Your task to perform on an android device: Open Google Chrome and click the shortcut for Amazon.com Image 0: 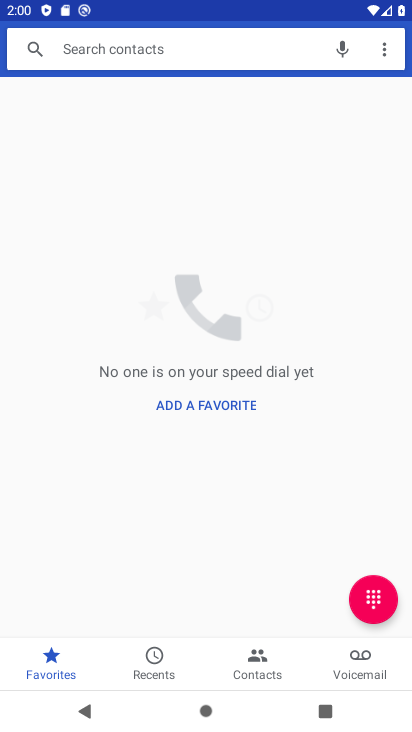
Step 0: press home button
Your task to perform on an android device: Open Google Chrome and click the shortcut for Amazon.com Image 1: 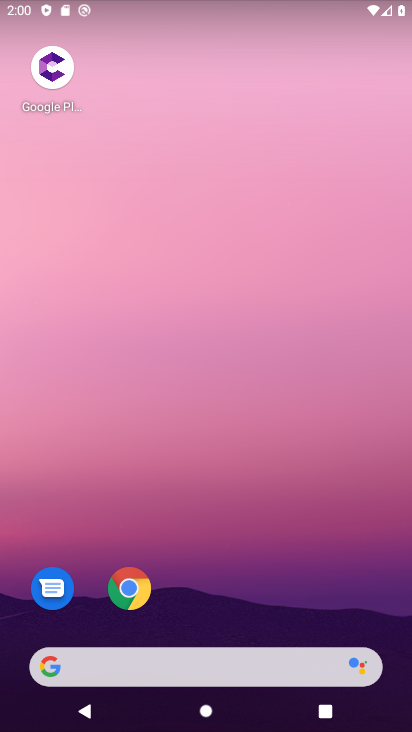
Step 1: click (136, 592)
Your task to perform on an android device: Open Google Chrome and click the shortcut for Amazon.com Image 2: 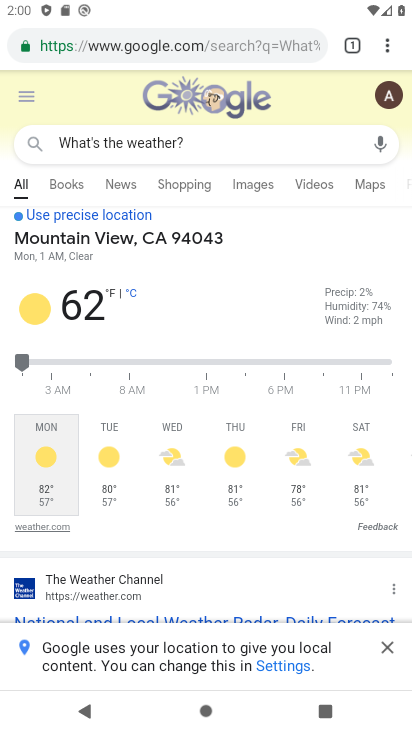
Step 2: click (356, 47)
Your task to perform on an android device: Open Google Chrome and click the shortcut for Amazon.com Image 3: 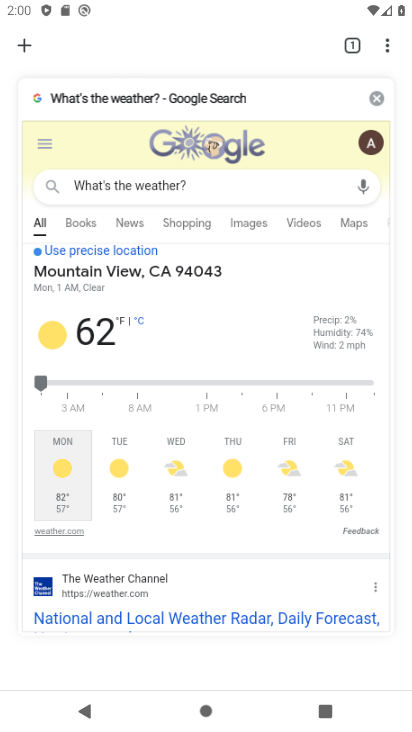
Step 3: click (32, 42)
Your task to perform on an android device: Open Google Chrome and click the shortcut for Amazon.com Image 4: 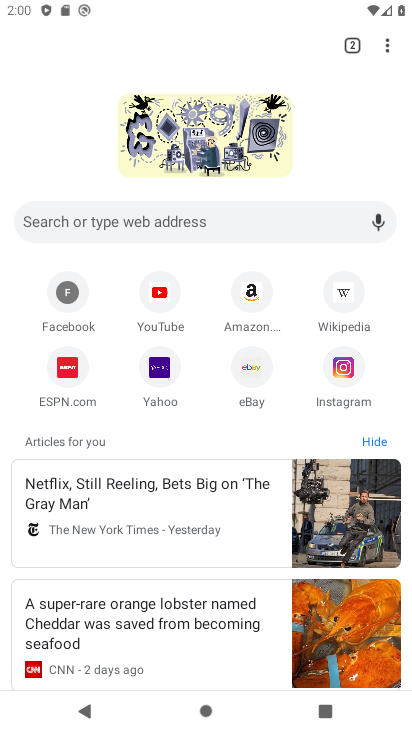
Step 4: click (257, 297)
Your task to perform on an android device: Open Google Chrome and click the shortcut for Amazon.com Image 5: 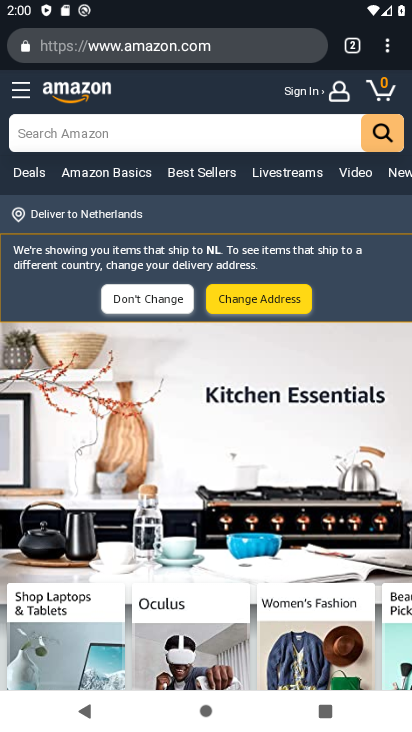
Step 5: task complete